Your task to perform on an android device: create a new album in the google photos Image 0: 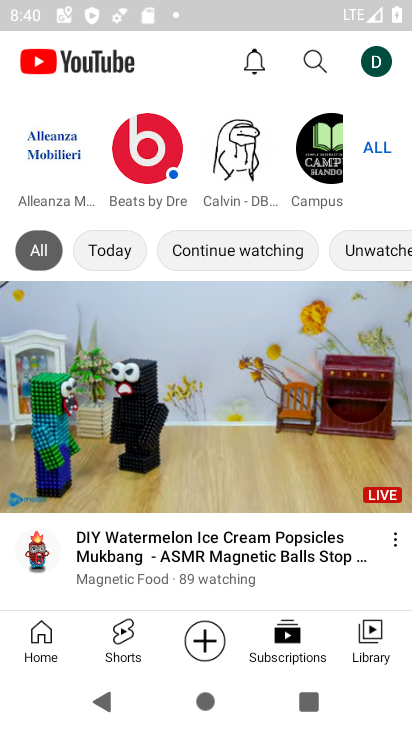
Step 0: press home button
Your task to perform on an android device: create a new album in the google photos Image 1: 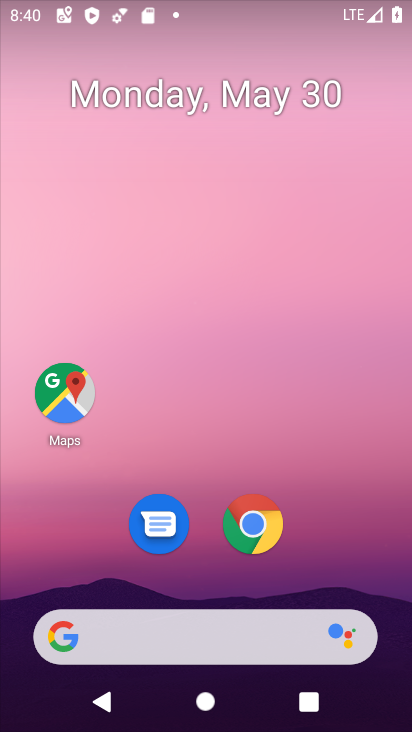
Step 1: drag from (227, 470) to (212, 0)
Your task to perform on an android device: create a new album in the google photos Image 2: 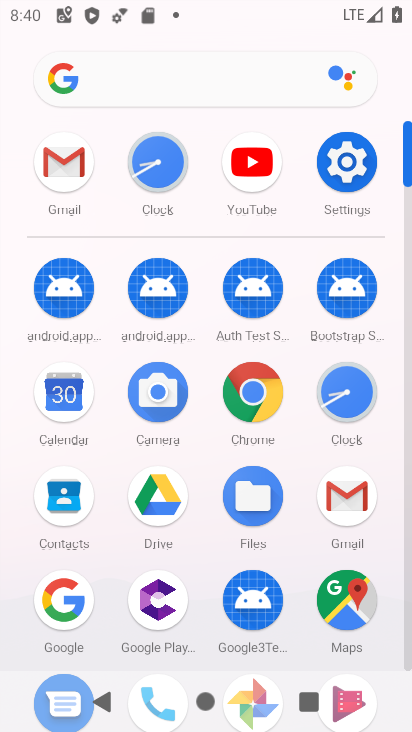
Step 2: drag from (218, 422) to (243, 2)
Your task to perform on an android device: create a new album in the google photos Image 3: 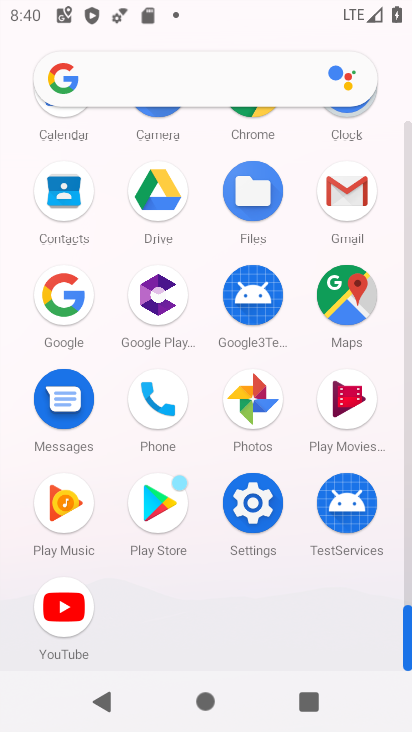
Step 3: click (263, 407)
Your task to perform on an android device: create a new album in the google photos Image 4: 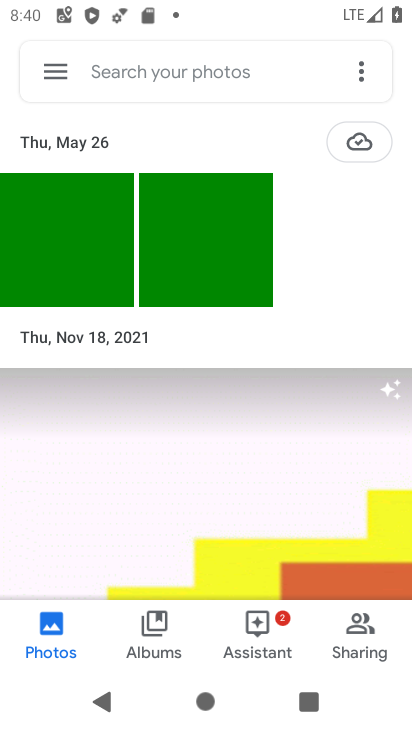
Step 4: click (144, 638)
Your task to perform on an android device: create a new album in the google photos Image 5: 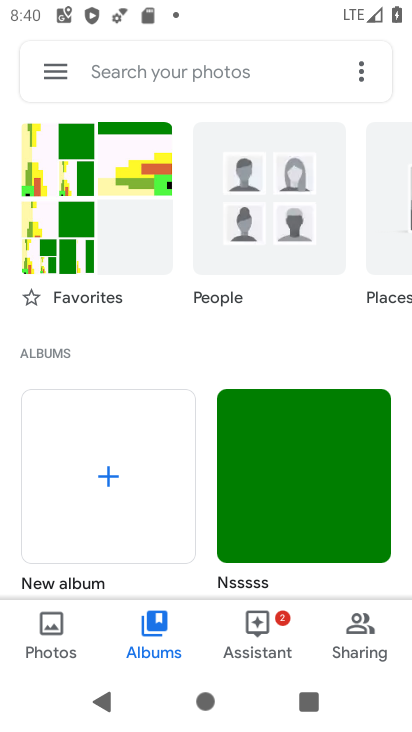
Step 5: click (107, 462)
Your task to perform on an android device: create a new album in the google photos Image 6: 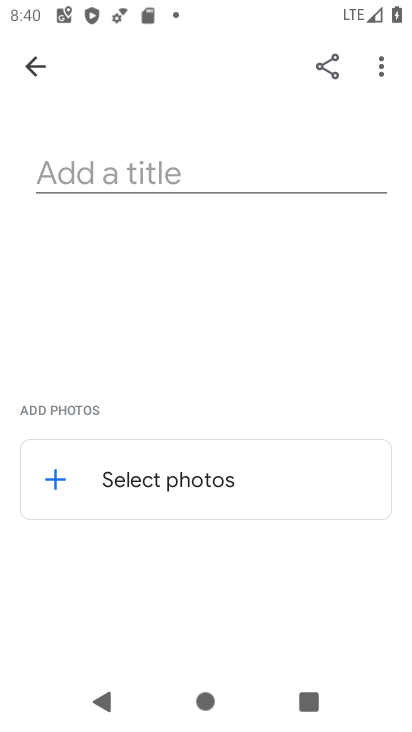
Step 6: click (170, 150)
Your task to perform on an android device: create a new album in the google photos Image 7: 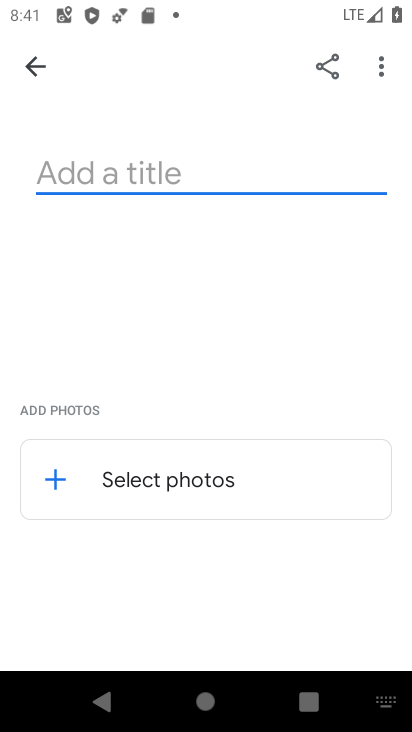
Step 7: type "Ayodhya Ramjanambhumi"
Your task to perform on an android device: create a new album in the google photos Image 8: 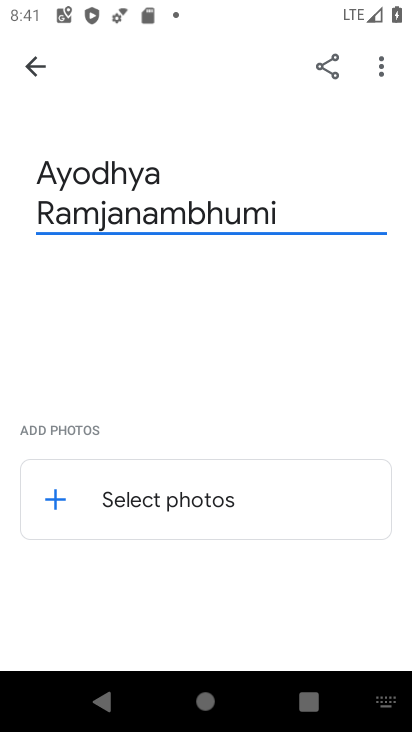
Step 8: click (48, 485)
Your task to perform on an android device: create a new album in the google photos Image 9: 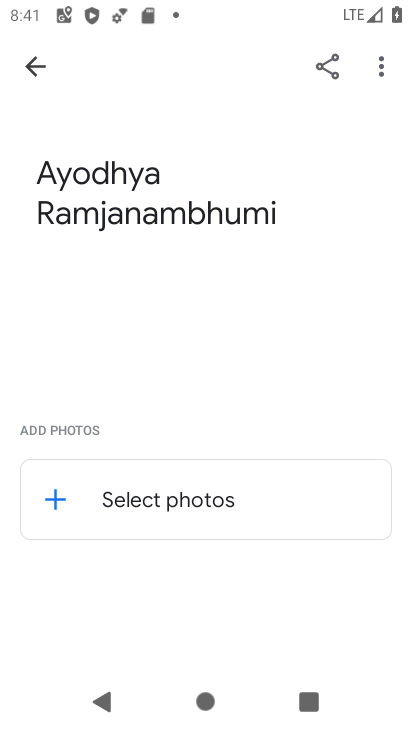
Step 9: click (53, 485)
Your task to perform on an android device: create a new album in the google photos Image 10: 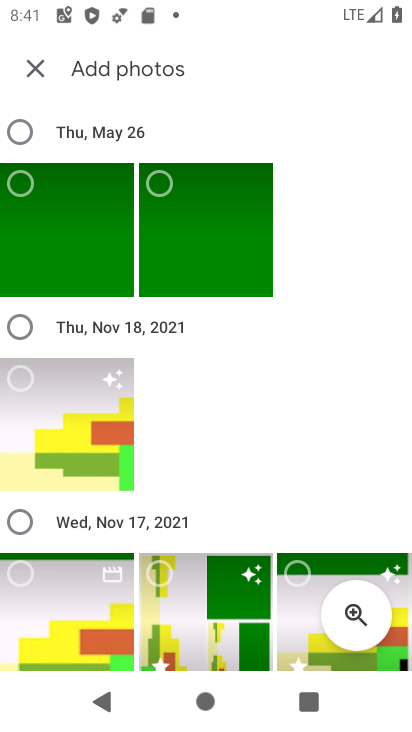
Step 10: click (22, 520)
Your task to perform on an android device: create a new album in the google photos Image 11: 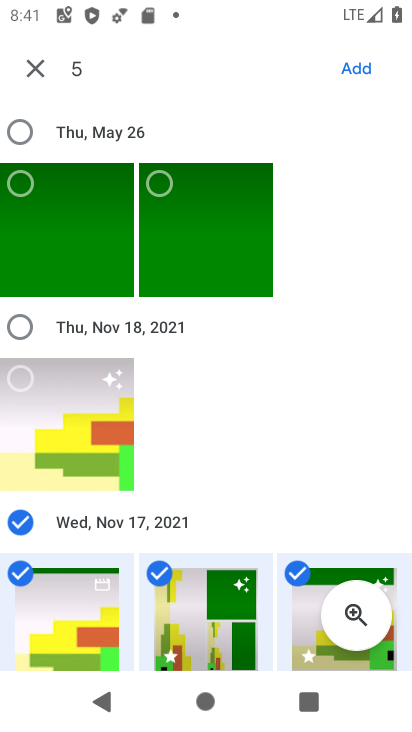
Step 11: click (360, 53)
Your task to perform on an android device: create a new album in the google photos Image 12: 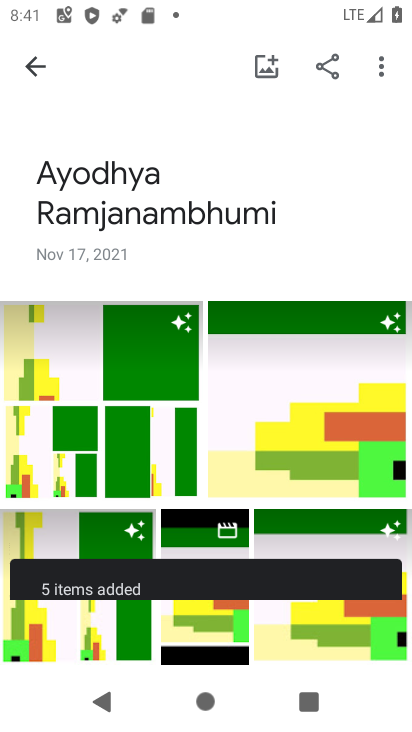
Step 12: task complete